Your task to perform on an android device: Open network settings Image 0: 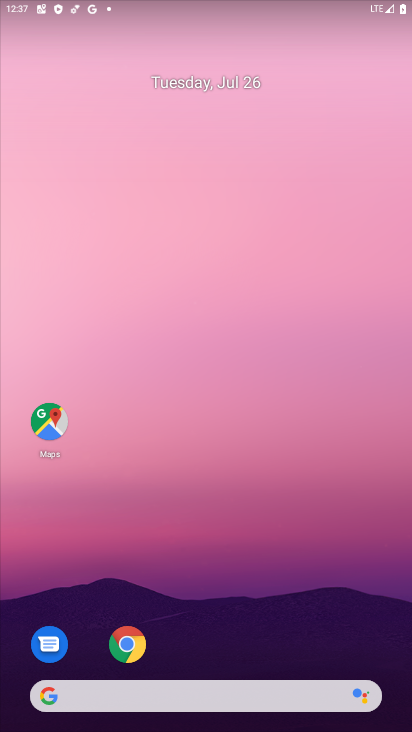
Step 0: drag from (262, 655) to (238, 81)
Your task to perform on an android device: Open network settings Image 1: 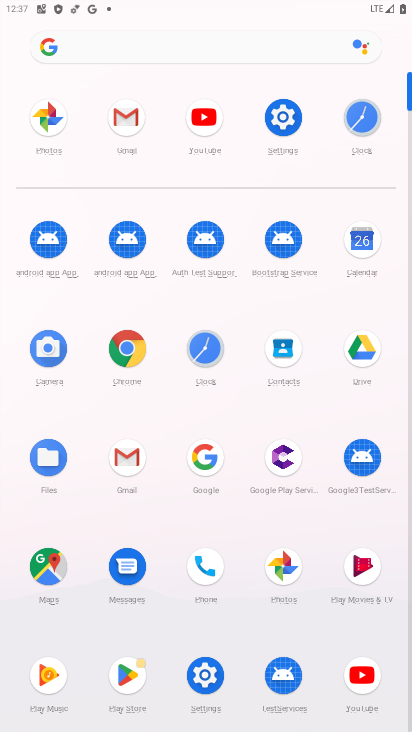
Step 1: click (275, 113)
Your task to perform on an android device: Open network settings Image 2: 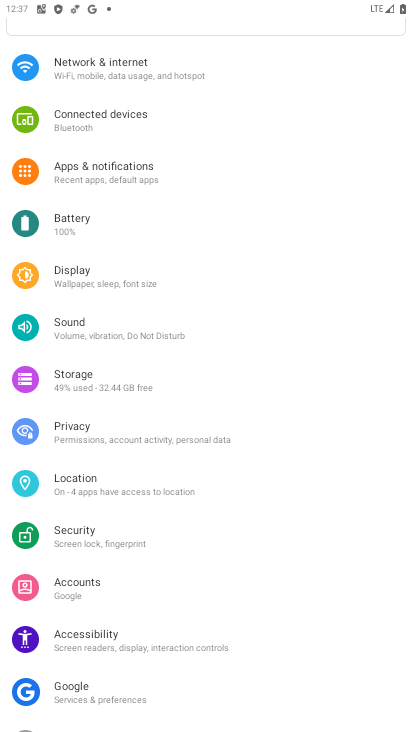
Step 2: click (83, 68)
Your task to perform on an android device: Open network settings Image 3: 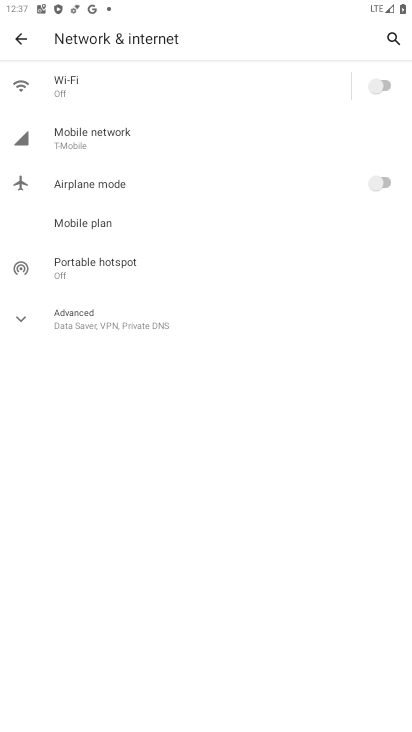
Step 3: click (79, 140)
Your task to perform on an android device: Open network settings Image 4: 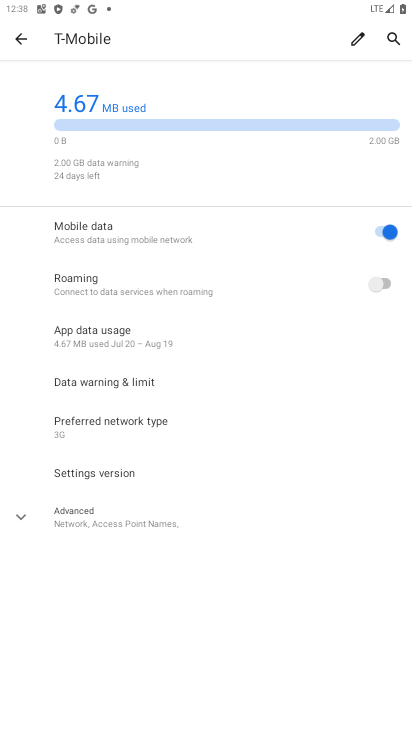
Step 4: task complete